Your task to perform on an android device: Open my contact list Image 0: 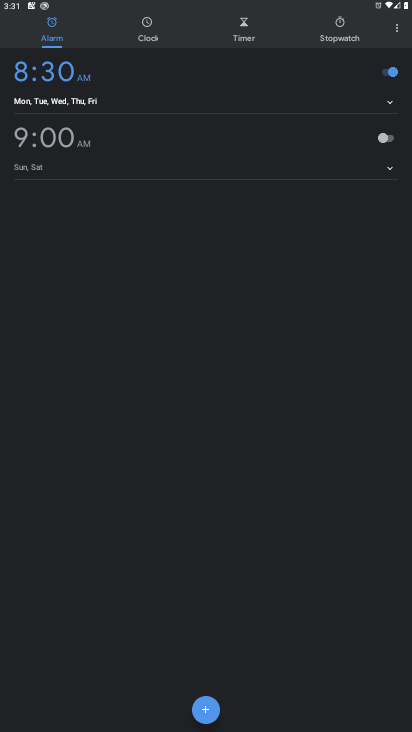
Step 0: press home button
Your task to perform on an android device: Open my contact list Image 1: 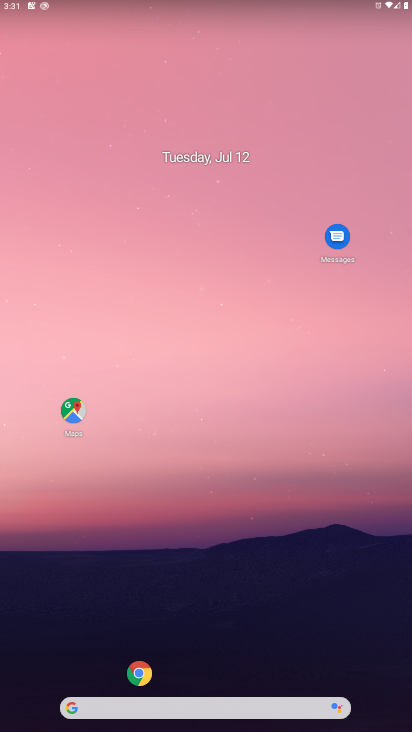
Step 1: drag from (13, 682) to (281, 102)
Your task to perform on an android device: Open my contact list Image 2: 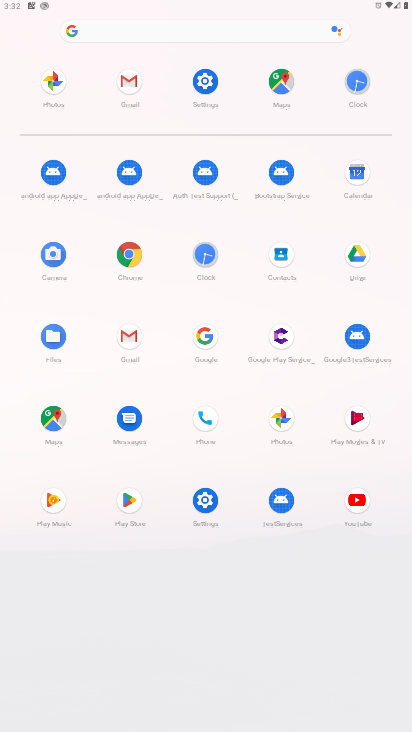
Step 2: click (293, 268)
Your task to perform on an android device: Open my contact list Image 3: 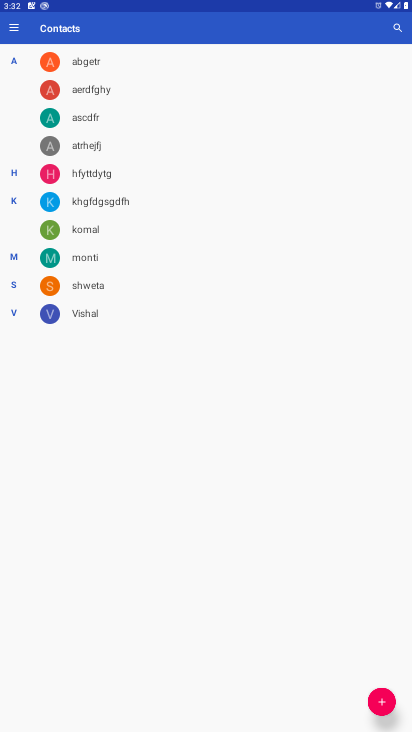
Step 3: task complete